Your task to perform on an android device: Toggle the flashlight Image 0: 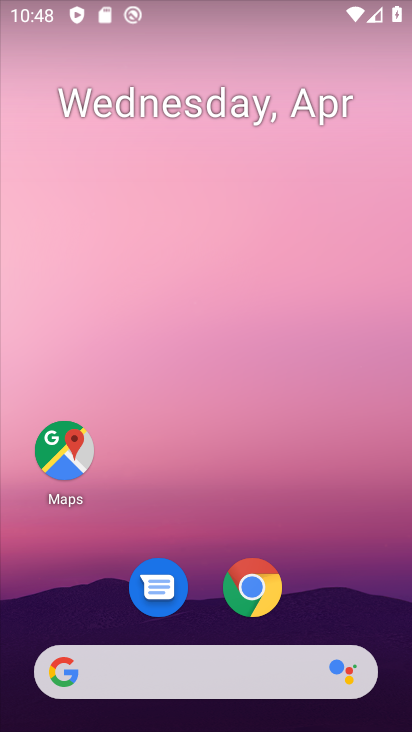
Step 0: drag from (228, 535) to (339, 16)
Your task to perform on an android device: Toggle the flashlight Image 1: 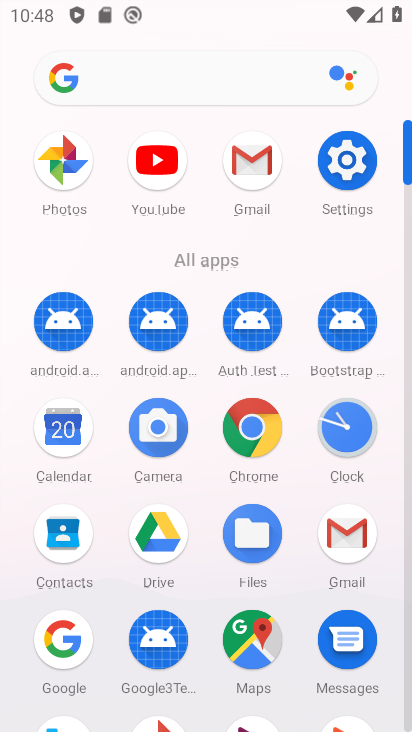
Step 1: click (348, 163)
Your task to perform on an android device: Toggle the flashlight Image 2: 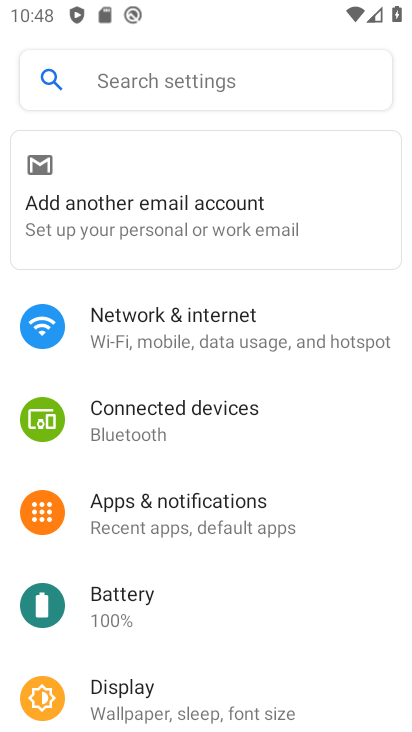
Step 2: click (155, 80)
Your task to perform on an android device: Toggle the flashlight Image 3: 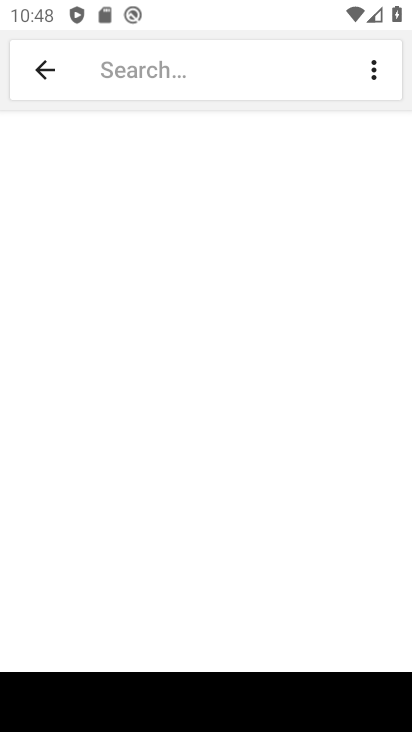
Step 3: type "flashlight"
Your task to perform on an android device: Toggle the flashlight Image 4: 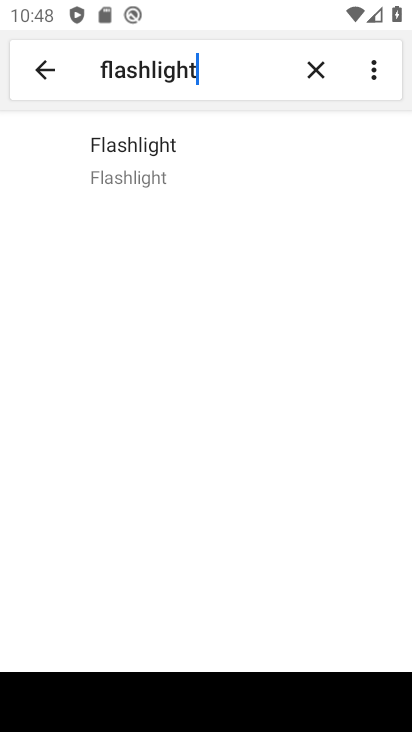
Step 4: click (159, 155)
Your task to perform on an android device: Toggle the flashlight Image 5: 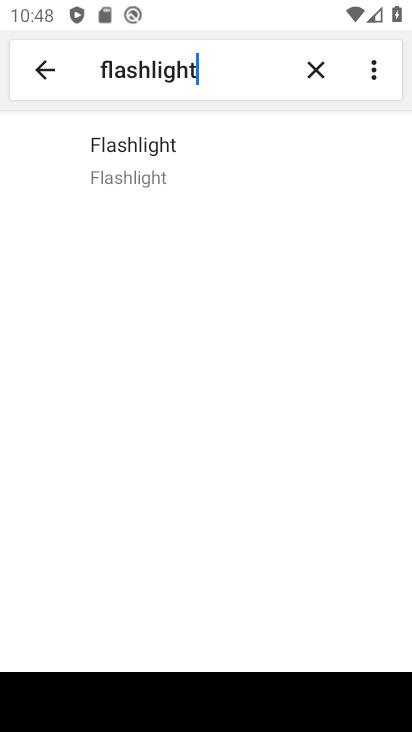
Step 5: task complete